Your task to perform on an android device: Search for sushi restaurants on Maps Image 0: 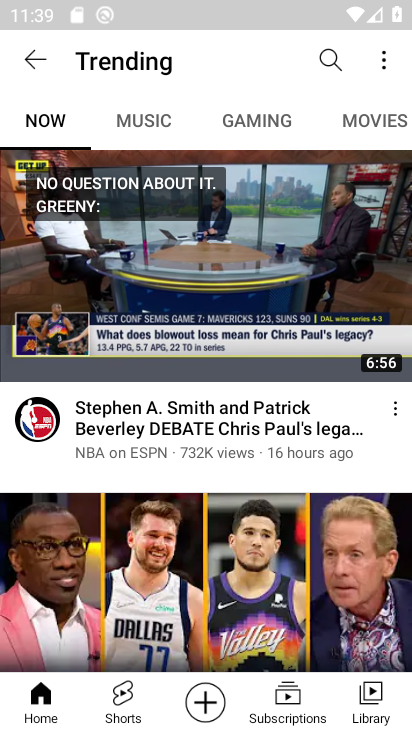
Step 0: press home button
Your task to perform on an android device: Search for sushi restaurants on Maps Image 1: 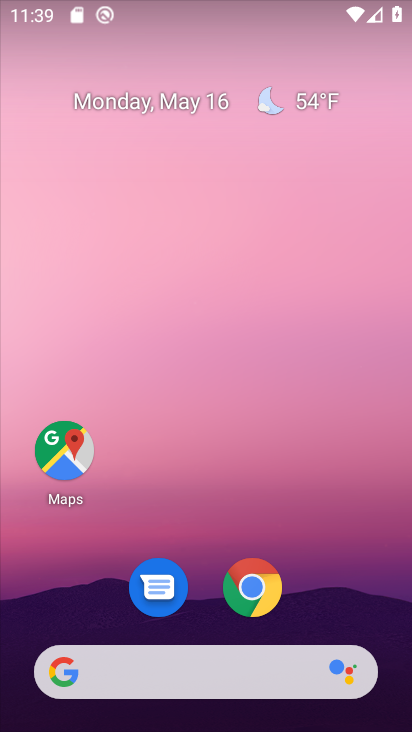
Step 1: click (63, 442)
Your task to perform on an android device: Search for sushi restaurants on Maps Image 2: 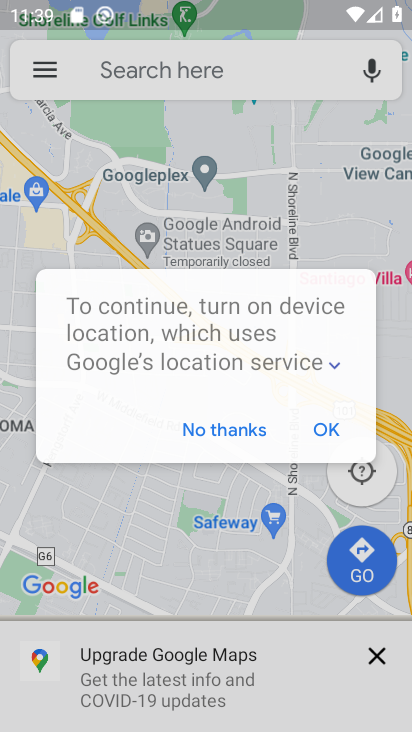
Step 2: click (184, 71)
Your task to perform on an android device: Search for sushi restaurants on Maps Image 3: 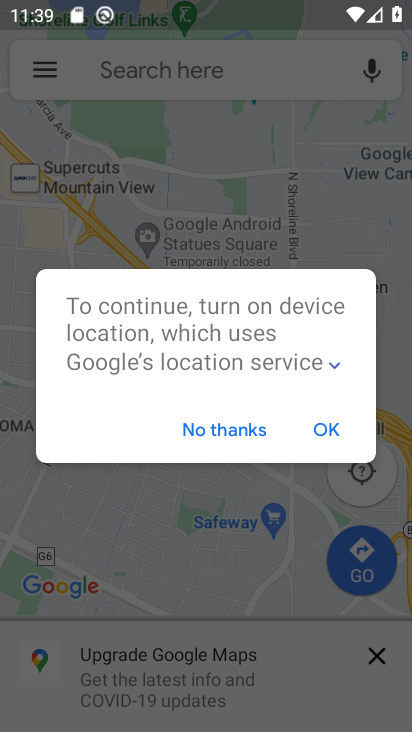
Step 3: click (218, 433)
Your task to perform on an android device: Search for sushi restaurants on Maps Image 4: 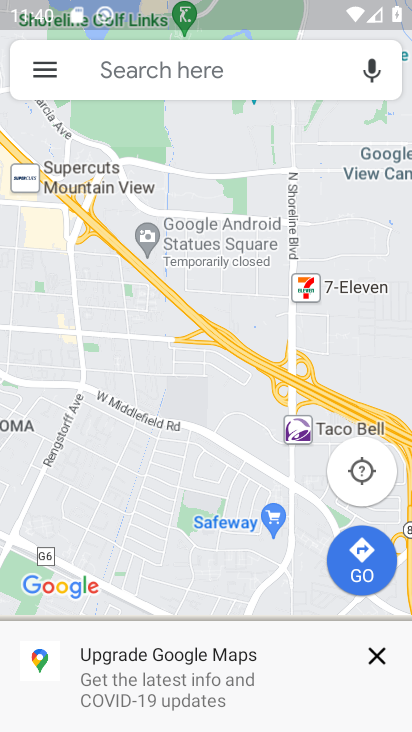
Step 4: type "sushi restaurants"
Your task to perform on an android device: Search for sushi restaurants on Maps Image 5: 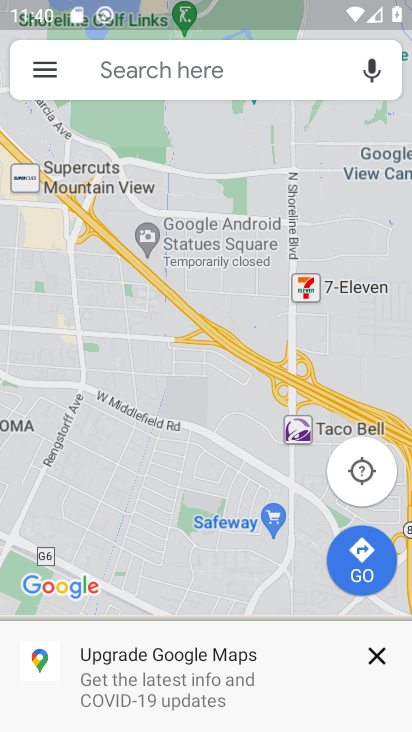
Step 5: click (241, 55)
Your task to perform on an android device: Search for sushi restaurants on Maps Image 6: 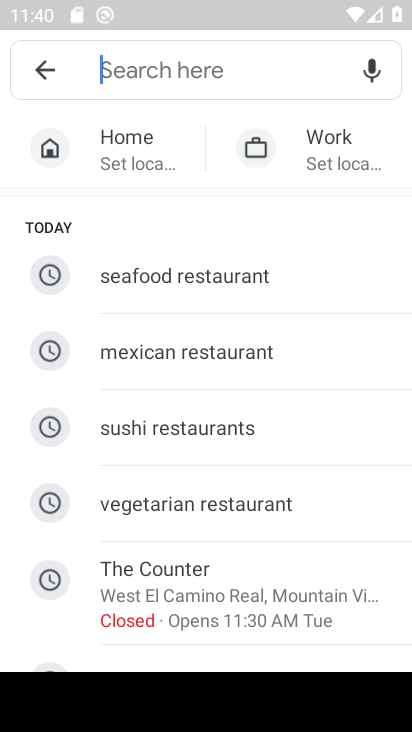
Step 6: type "Sushi restaurants"
Your task to perform on an android device: Search for sushi restaurants on Maps Image 7: 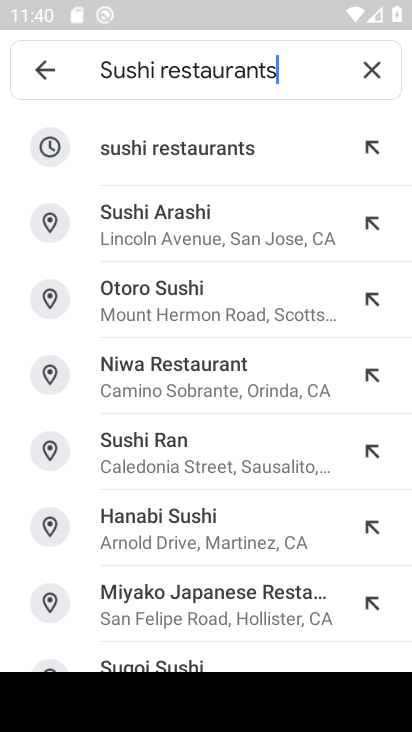
Step 7: click (223, 143)
Your task to perform on an android device: Search for sushi restaurants on Maps Image 8: 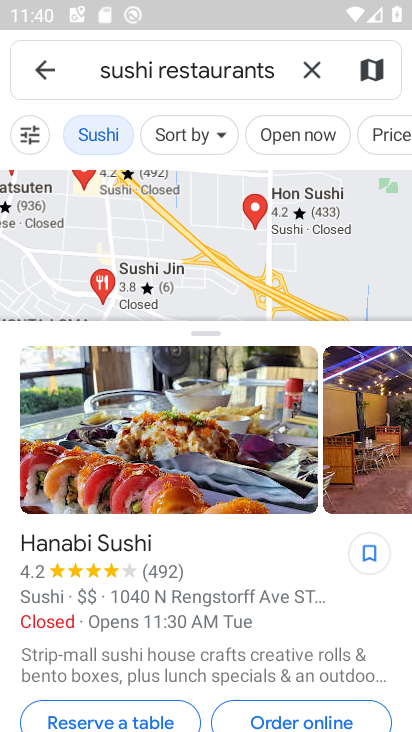
Step 8: task complete